Your task to perform on an android device: Is it going to rain tomorrow? Image 0: 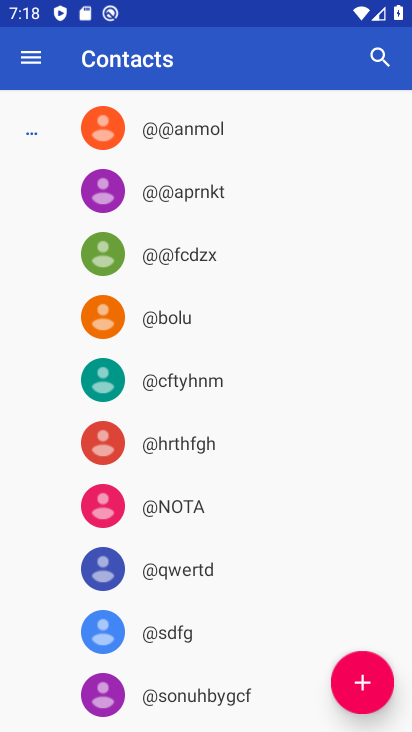
Step 0: press home button
Your task to perform on an android device: Is it going to rain tomorrow? Image 1: 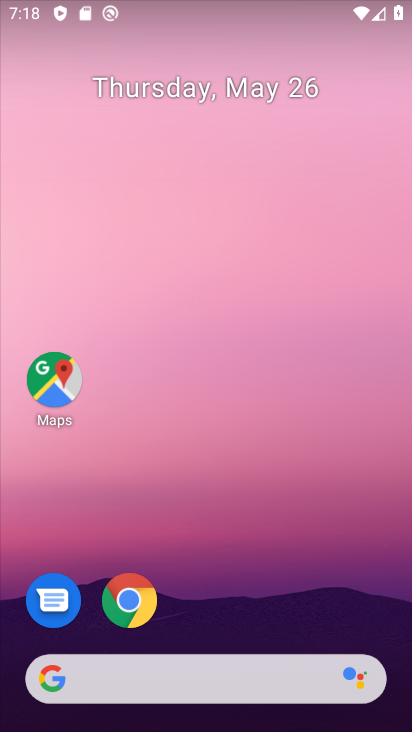
Step 1: click (49, 683)
Your task to perform on an android device: Is it going to rain tomorrow? Image 2: 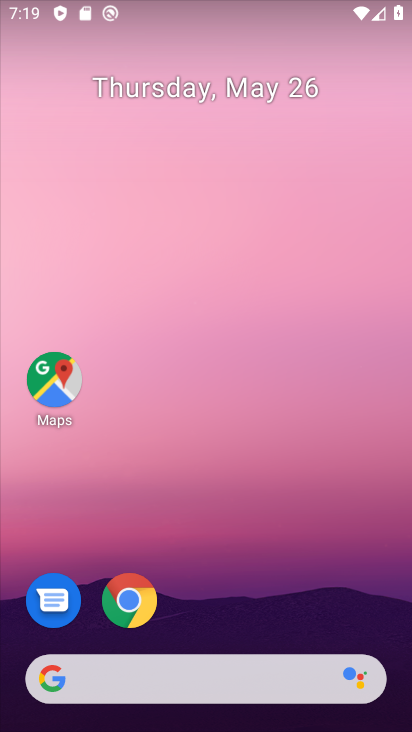
Step 2: type "rain tomorrow?"
Your task to perform on an android device: Is it going to rain tomorrow? Image 3: 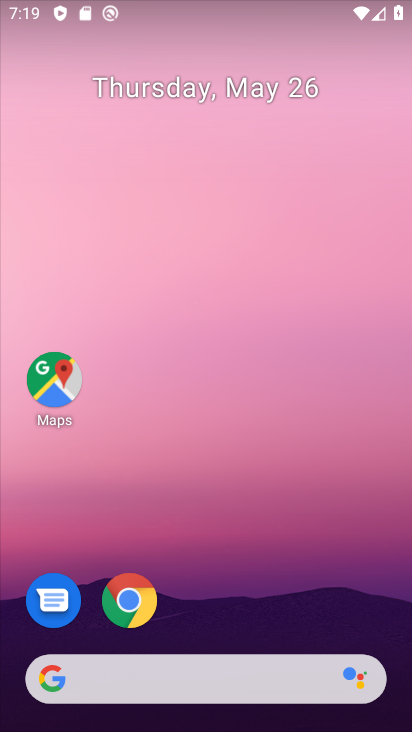
Step 3: click (58, 678)
Your task to perform on an android device: Is it going to rain tomorrow? Image 4: 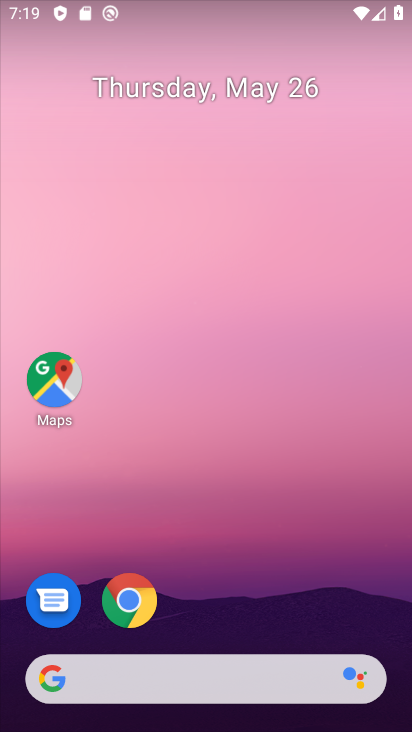
Step 4: click (54, 670)
Your task to perform on an android device: Is it going to rain tomorrow? Image 5: 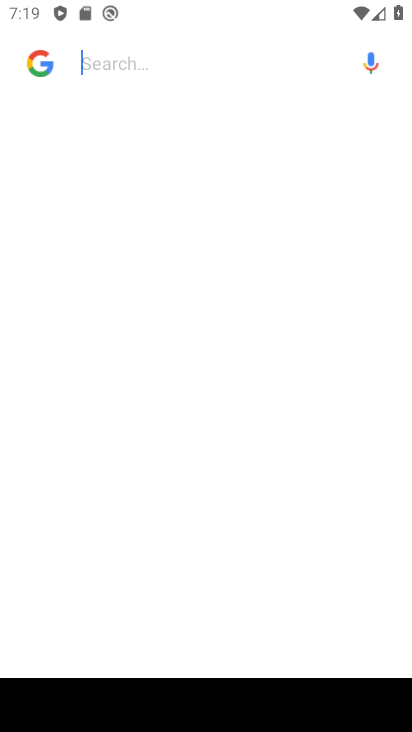
Step 5: click (134, 66)
Your task to perform on an android device: Is it going to rain tomorrow? Image 6: 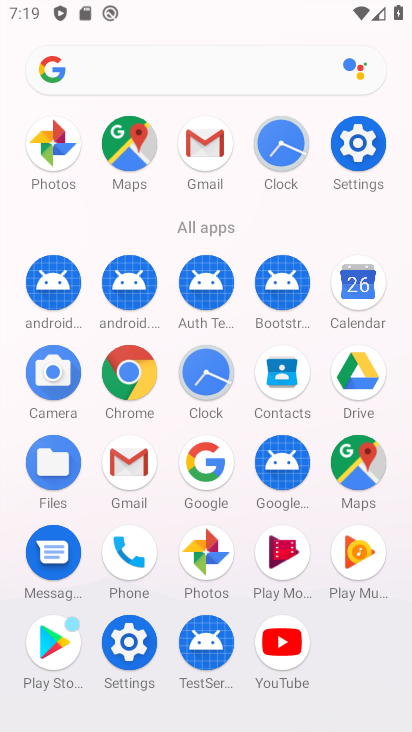
Step 6: type "rain tomorrow?"
Your task to perform on an android device: Is it going to rain tomorrow? Image 7: 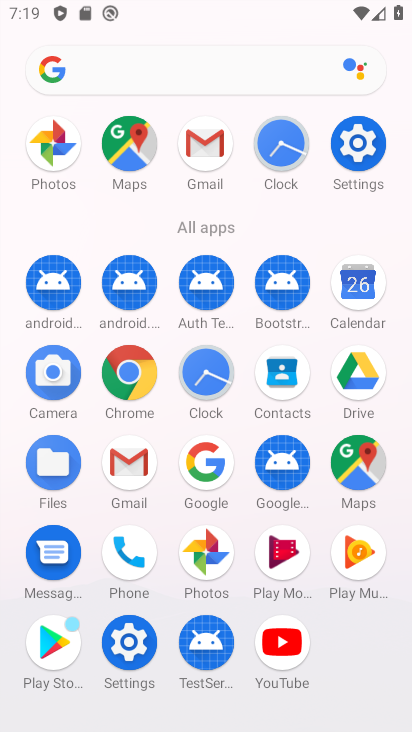
Step 7: click (156, 73)
Your task to perform on an android device: Is it going to rain tomorrow? Image 8: 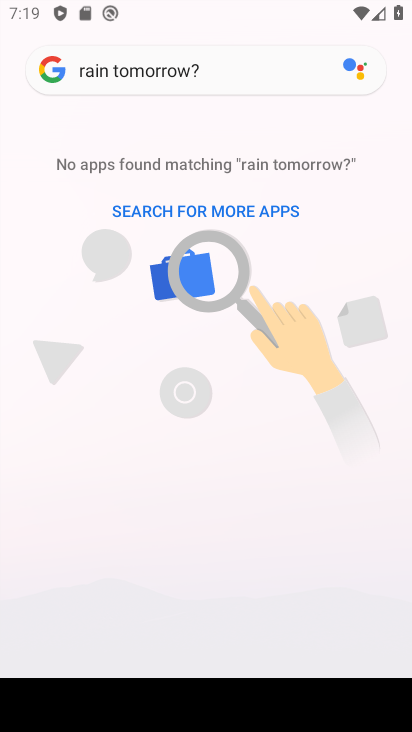
Step 8: click (230, 69)
Your task to perform on an android device: Is it going to rain tomorrow? Image 9: 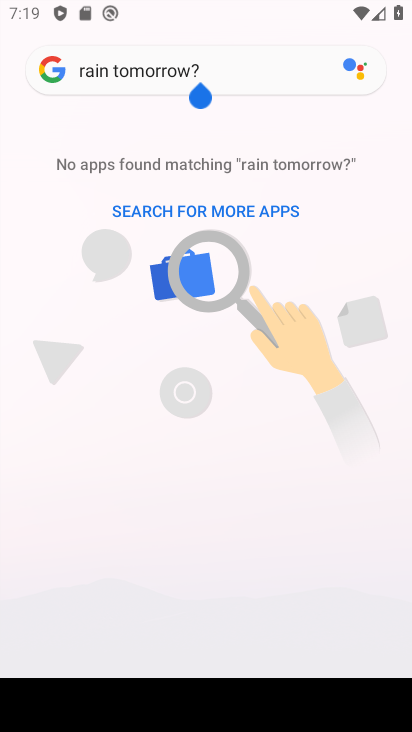
Step 9: press home button
Your task to perform on an android device: Is it going to rain tomorrow? Image 10: 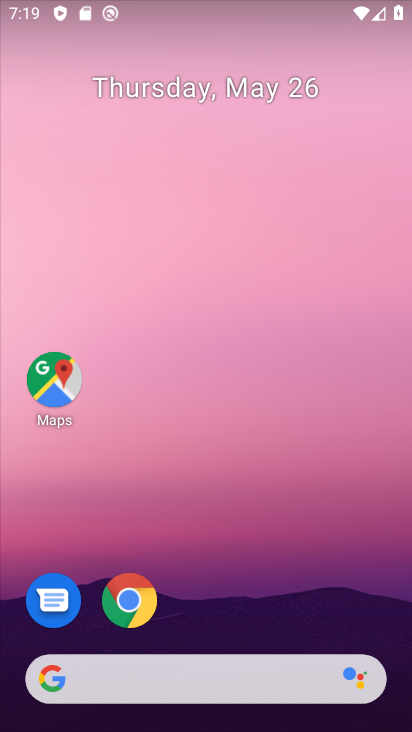
Step 10: click (52, 683)
Your task to perform on an android device: Is it going to rain tomorrow? Image 11: 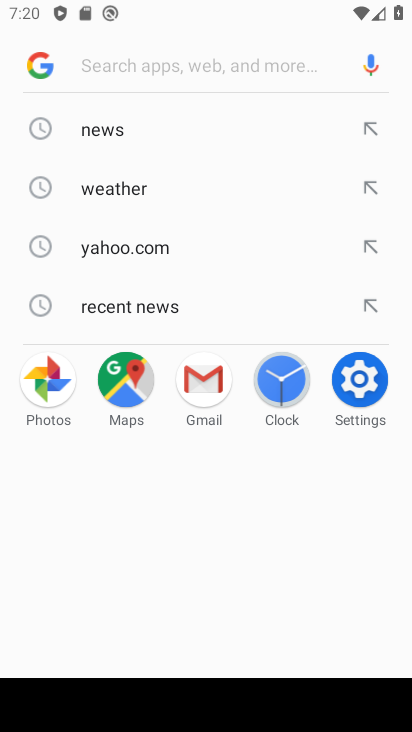
Step 11: type "rain tomorrow?"
Your task to perform on an android device: Is it going to rain tomorrow? Image 12: 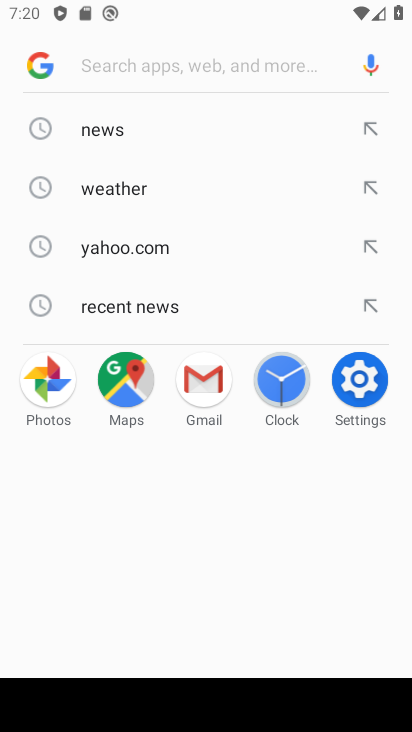
Step 12: click (174, 62)
Your task to perform on an android device: Is it going to rain tomorrow? Image 13: 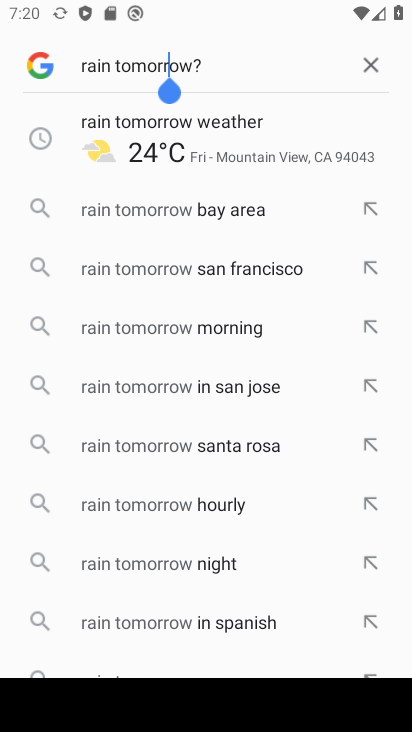
Step 13: click (156, 126)
Your task to perform on an android device: Is it going to rain tomorrow? Image 14: 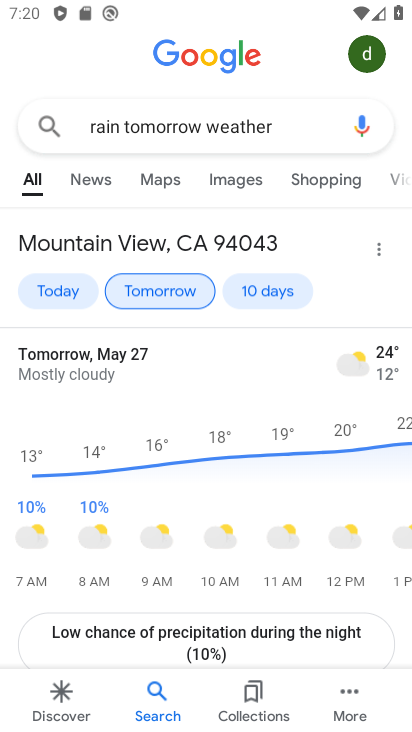
Step 14: task complete